Your task to perform on an android device: turn on the 24-hour format for clock Image 0: 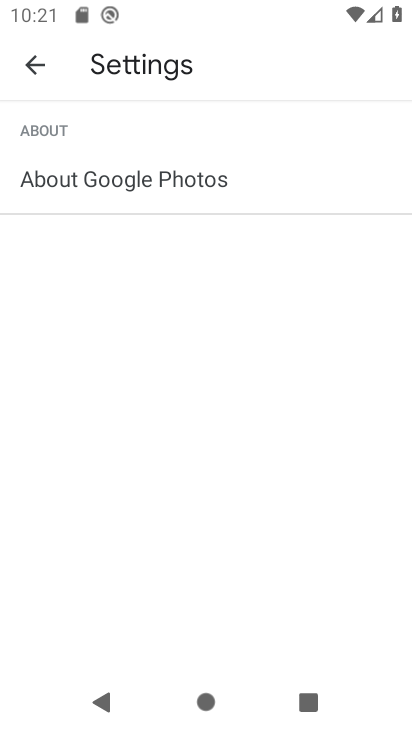
Step 0: press home button
Your task to perform on an android device: turn on the 24-hour format for clock Image 1: 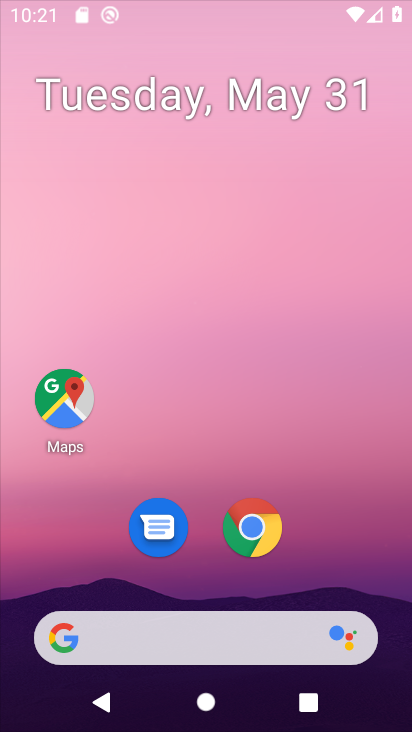
Step 1: drag from (340, 495) to (279, 1)
Your task to perform on an android device: turn on the 24-hour format for clock Image 2: 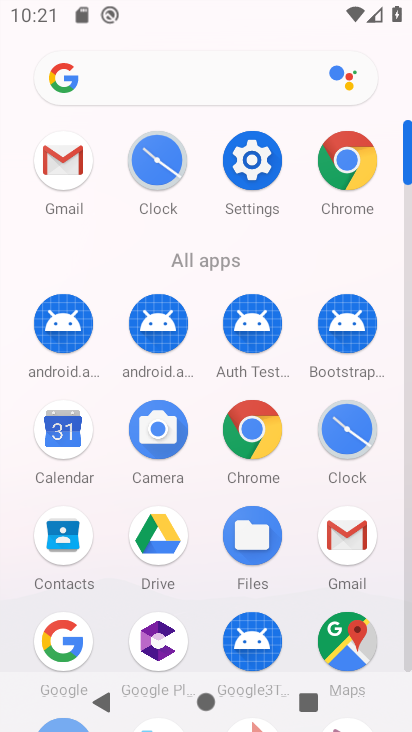
Step 2: click (158, 157)
Your task to perform on an android device: turn on the 24-hour format for clock Image 3: 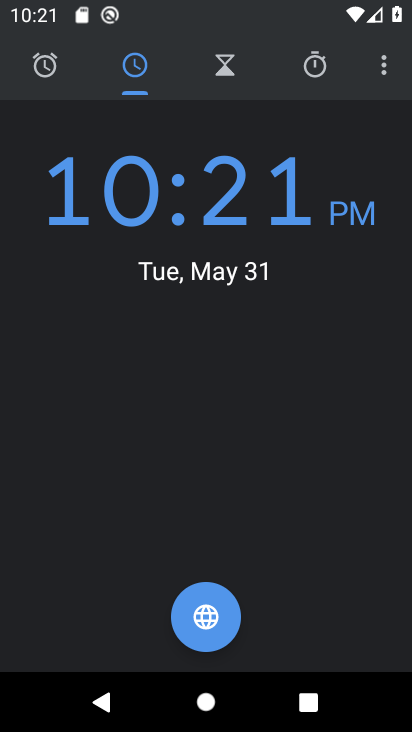
Step 3: click (377, 67)
Your task to perform on an android device: turn on the 24-hour format for clock Image 4: 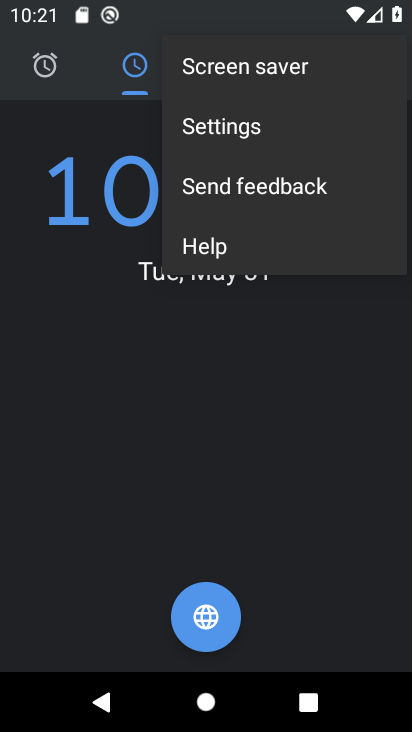
Step 4: click (300, 127)
Your task to perform on an android device: turn on the 24-hour format for clock Image 5: 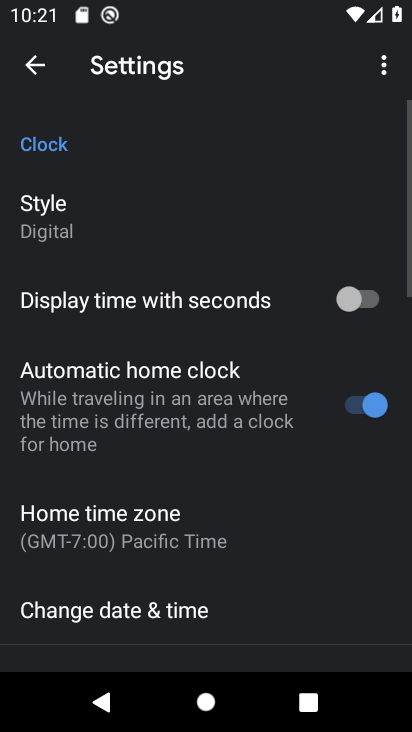
Step 5: click (143, 613)
Your task to perform on an android device: turn on the 24-hour format for clock Image 6: 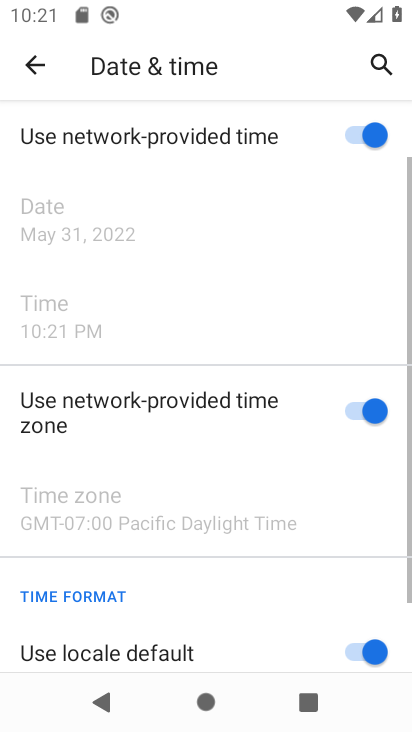
Step 6: drag from (243, 509) to (221, 111)
Your task to perform on an android device: turn on the 24-hour format for clock Image 7: 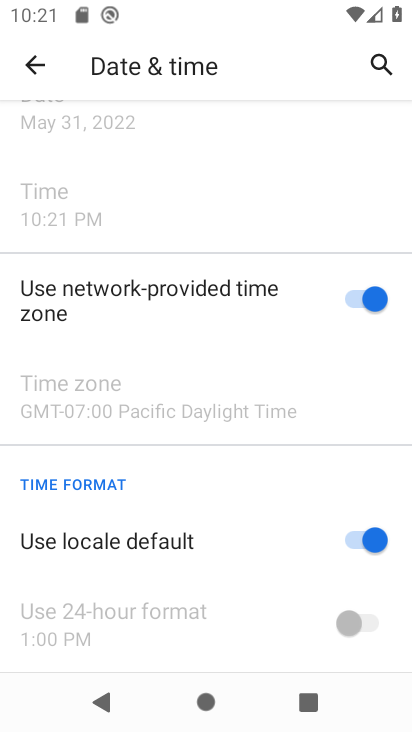
Step 7: click (364, 533)
Your task to perform on an android device: turn on the 24-hour format for clock Image 8: 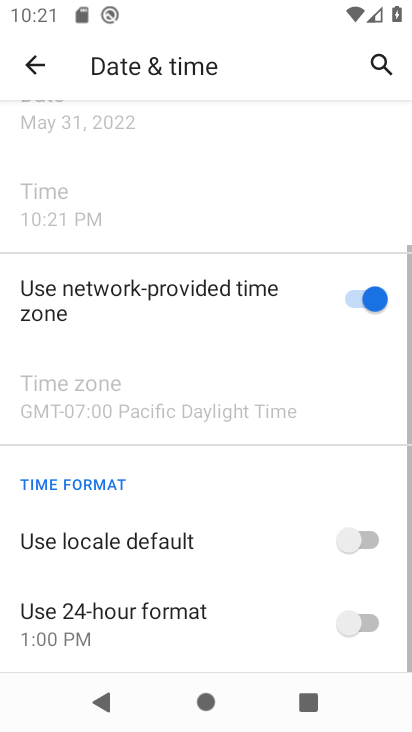
Step 8: click (356, 624)
Your task to perform on an android device: turn on the 24-hour format for clock Image 9: 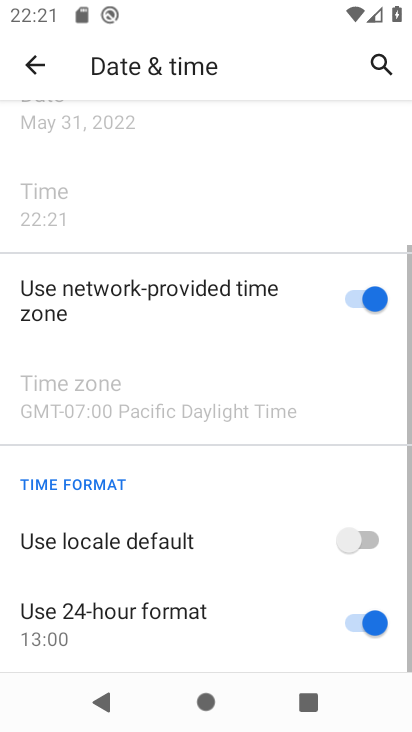
Step 9: task complete